Your task to perform on an android device: Search for vegetarian restaurants on Maps Image 0: 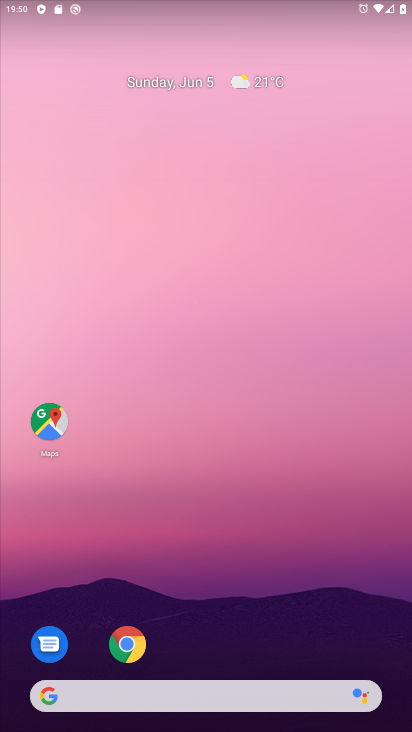
Step 0: click (44, 423)
Your task to perform on an android device: Search for vegetarian restaurants on Maps Image 1: 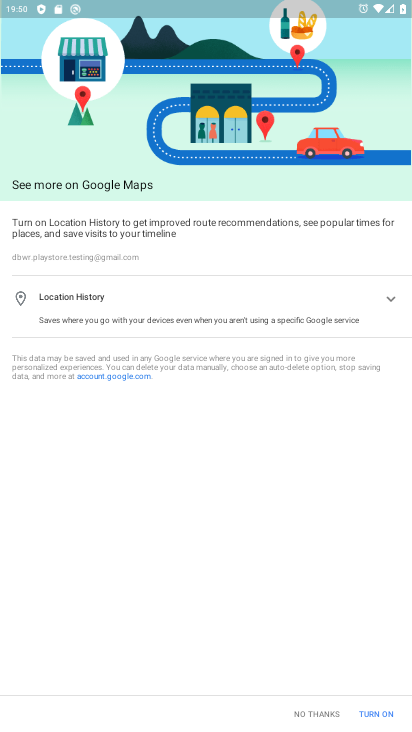
Step 1: click (317, 715)
Your task to perform on an android device: Search for vegetarian restaurants on Maps Image 2: 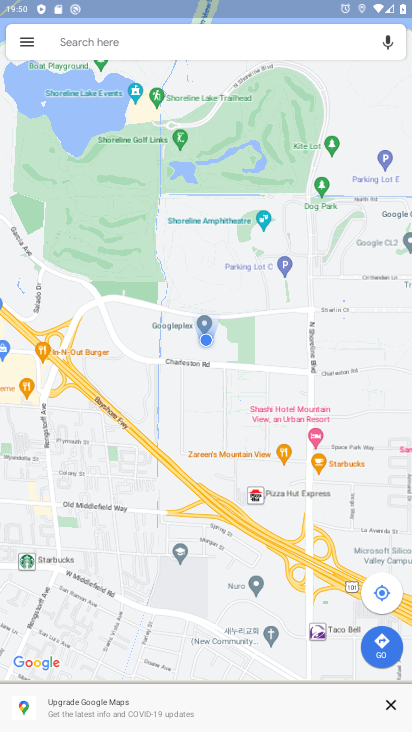
Step 2: click (200, 44)
Your task to perform on an android device: Search for vegetarian restaurants on Maps Image 3: 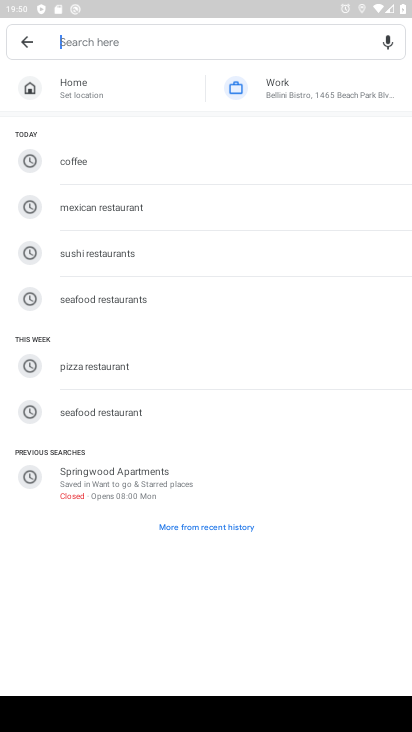
Step 3: click (182, 32)
Your task to perform on an android device: Search for vegetarian restaurants on Maps Image 4: 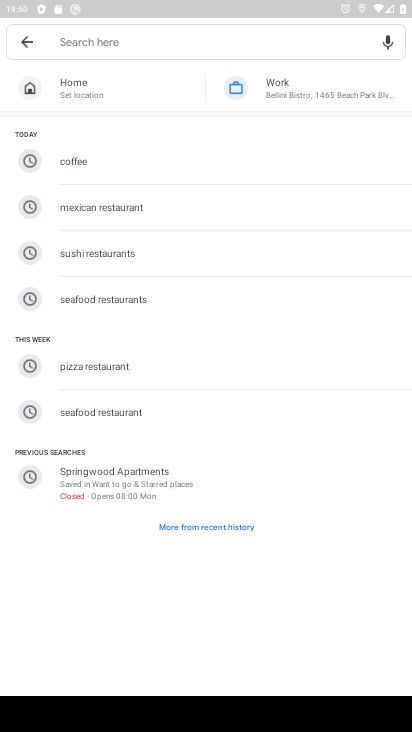
Step 4: type "vegetarian restaurants"
Your task to perform on an android device: Search for vegetarian restaurants on Maps Image 5: 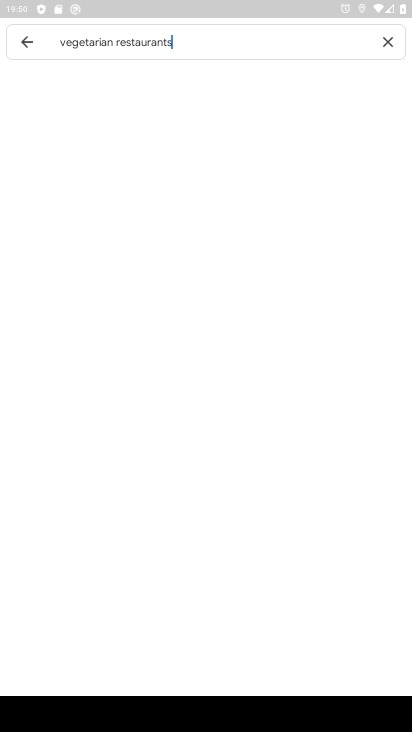
Step 5: type ""
Your task to perform on an android device: Search for vegetarian restaurants on Maps Image 6: 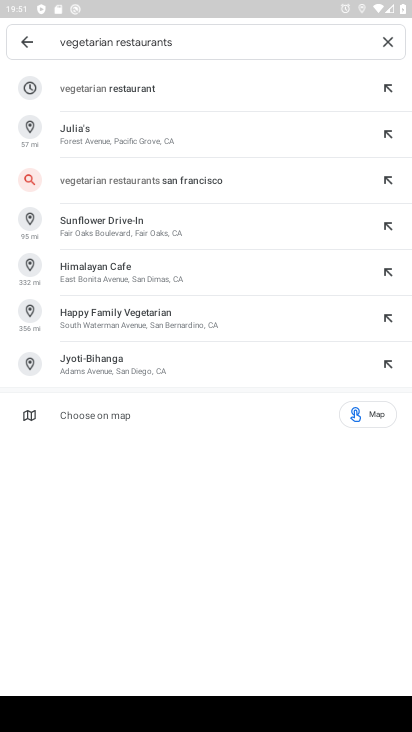
Step 6: click (110, 86)
Your task to perform on an android device: Search for vegetarian restaurants on Maps Image 7: 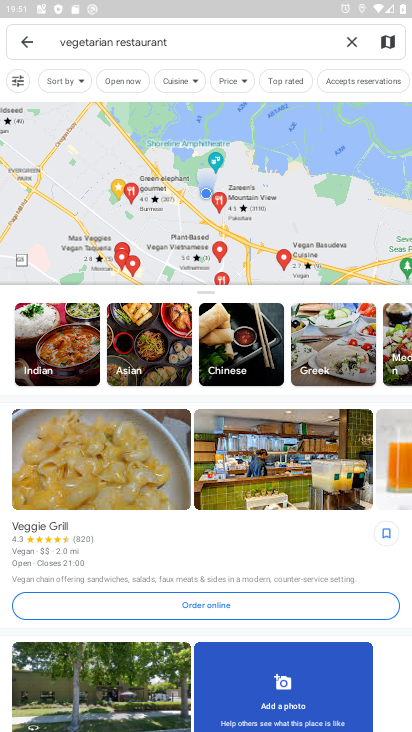
Step 7: task complete